Your task to perform on an android device: Search for "logitech g903" on walmart, select the first entry, add it to the cart, then select checkout. Image 0: 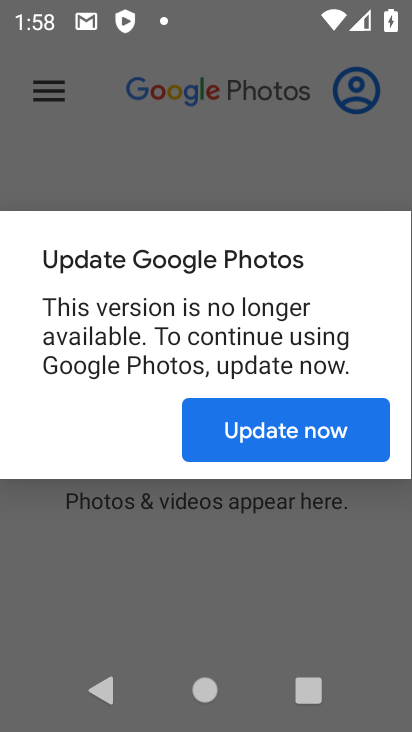
Step 0: press home button
Your task to perform on an android device: Search for "logitech g903" on walmart, select the first entry, add it to the cart, then select checkout. Image 1: 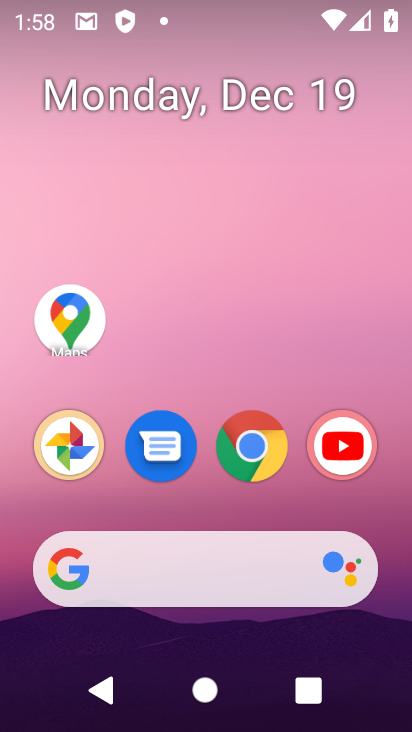
Step 1: click (238, 471)
Your task to perform on an android device: Search for "logitech g903" on walmart, select the first entry, add it to the cart, then select checkout. Image 2: 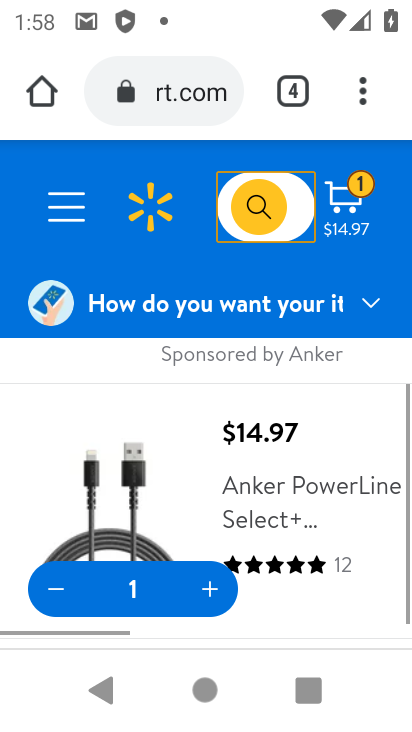
Step 2: click (249, 203)
Your task to perform on an android device: Search for "logitech g903" on walmart, select the first entry, add it to the cart, then select checkout. Image 3: 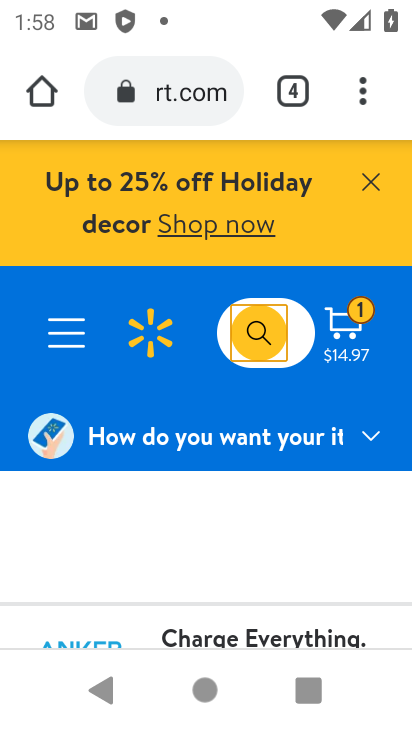
Step 3: click (296, 331)
Your task to perform on an android device: Search for "logitech g903" on walmart, select the first entry, add it to the cart, then select checkout. Image 4: 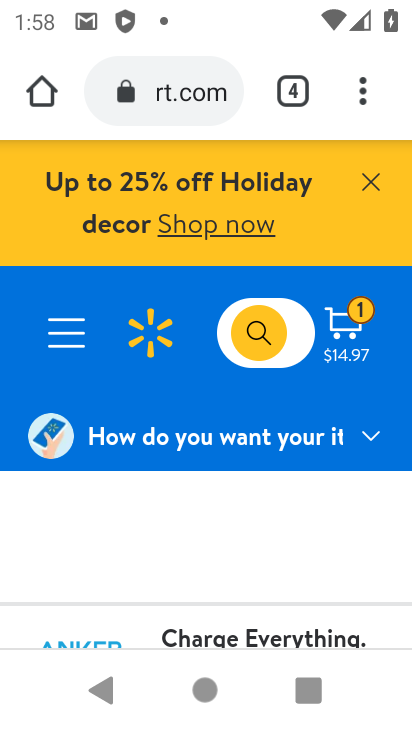
Step 4: click (296, 331)
Your task to perform on an android device: Search for "logitech g903" on walmart, select the first entry, add it to the cart, then select checkout. Image 5: 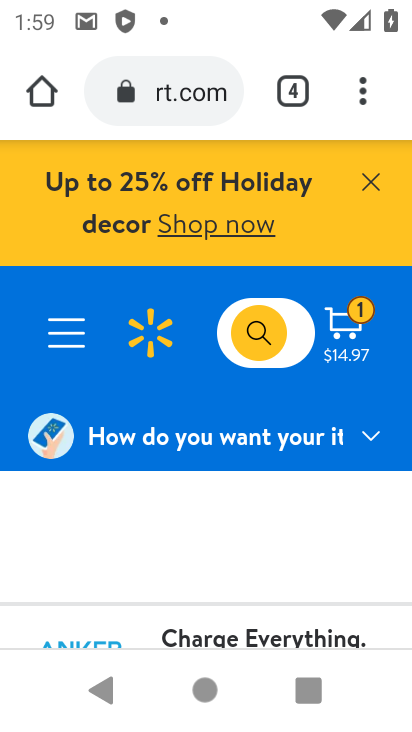
Step 5: click (220, 332)
Your task to perform on an android device: Search for "logitech g903" on walmart, select the first entry, add it to the cart, then select checkout. Image 6: 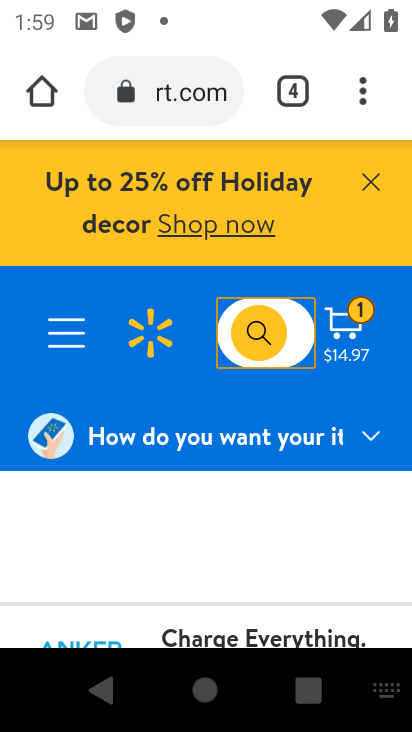
Step 6: click (220, 332)
Your task to perform on an android device: Search for "logitech g903" on walmart, select the first entry, add it to the cart, then select checkout. Image 7: 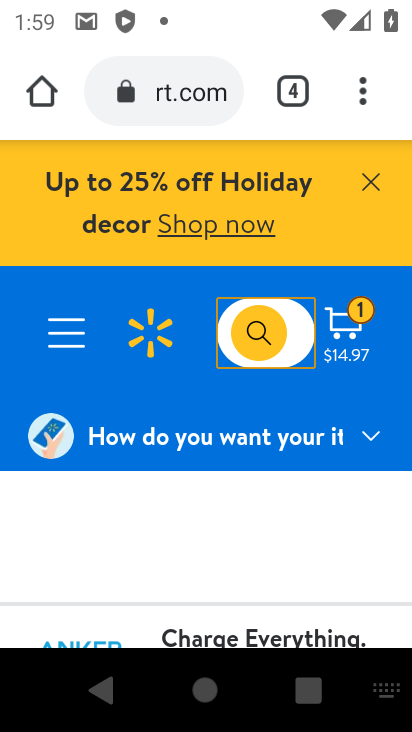
Step 7: click (220, 332)
Your task to perform on an android device: Search for "logitech g903" on walmart, select the first entry, add it to the cart, then select checkout. Image 8: 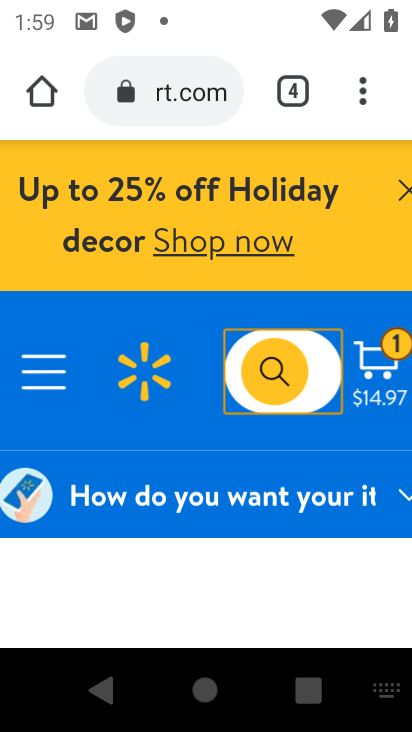
Step 8: task complete